Your task to perform on an android device: View the shopping cart on costco. Add "beats solo 3" to the cart on costco Image 0: 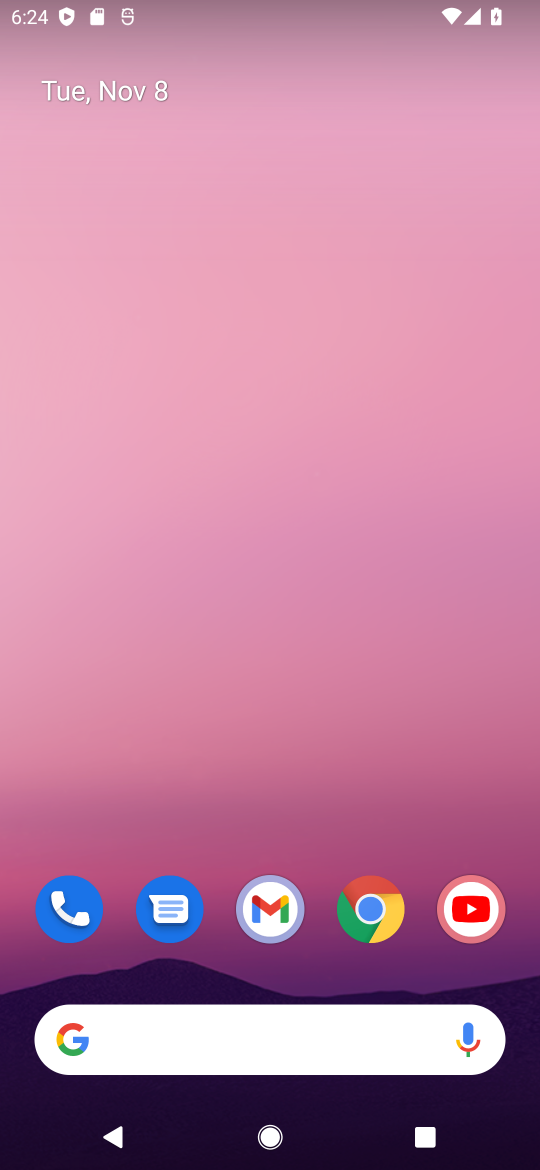
Step 0: click (374, 911)
Your task to perform on an android device: View the shopping cart on costco. Add "beats solo 3" to the cart on costco Image 1: 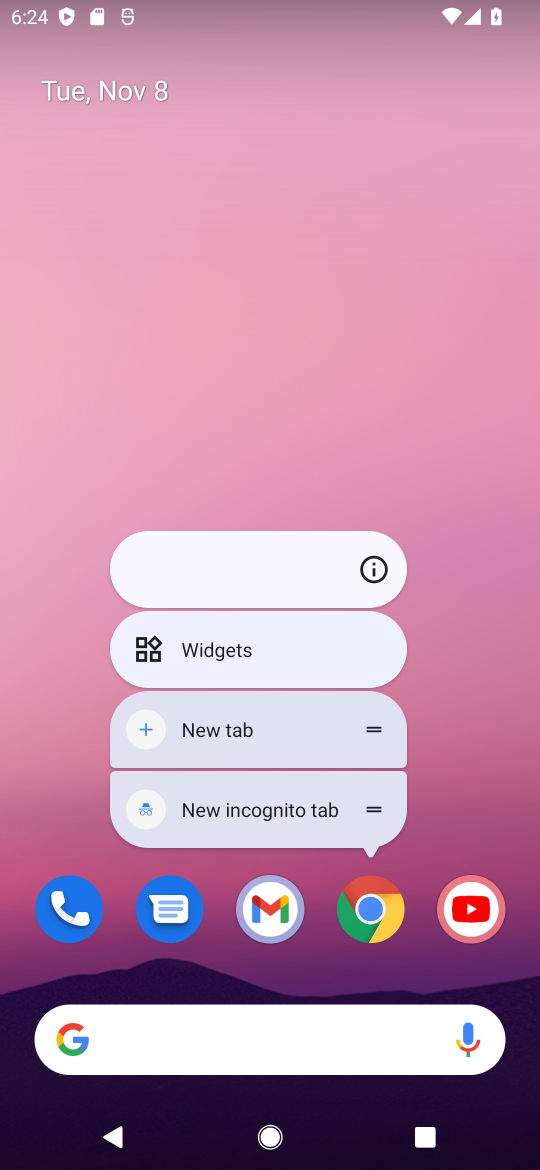
Step 1: click (374, 911)
Your task to perform on an android device: View the shopping cart on costco. Add "beats solo 3" to the cart on costco Image 2: 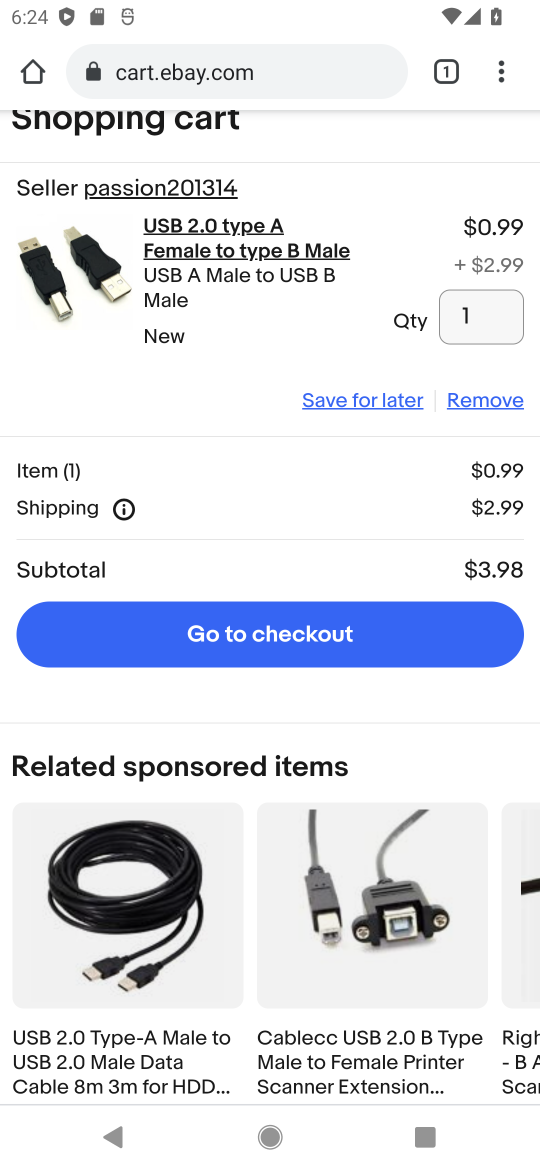
Step 2: click (310, 71)
Your task to perform on an android device: View the shopping cart on costco. Add "beats solo 3" to the cart on costco Image 3: 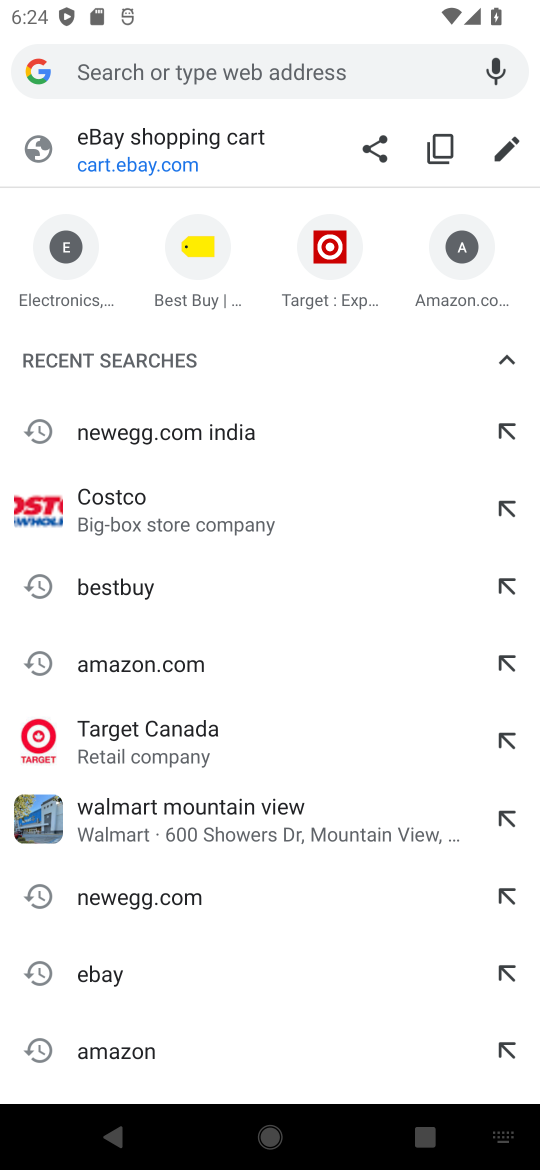
Step 3: click (94, 498)
Your task to perform on an android device: View the shopping cart on costco. Add "beats solo 3" to the cart on costco Image 4: 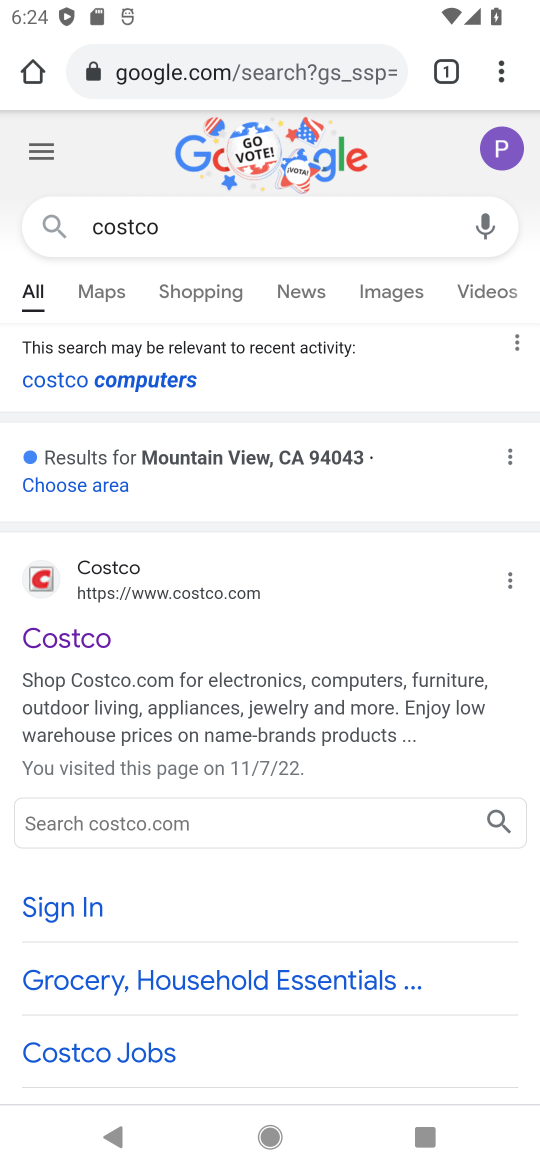
Step 4: click (77, 635)
Your task to perform on an android device: View the shopping cart on costco. Add "beats solo 3" to the cart on costco Image 5: 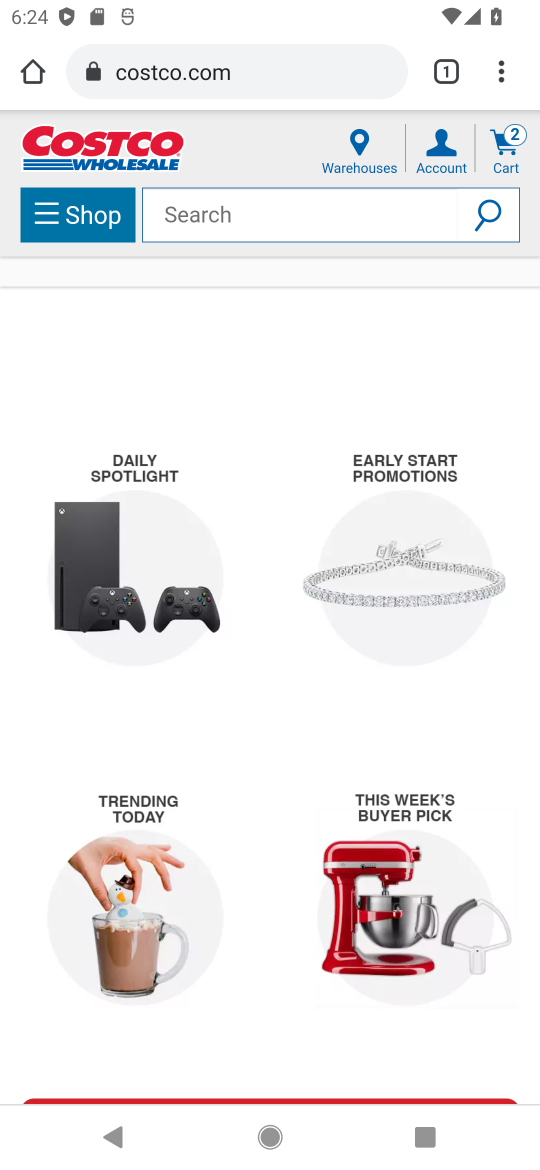
Step 5: click (305, 209)
Your task to perform on an android device: View the shopping cart on costco. Add "beats solo 3" to the cart on costco Image 6: 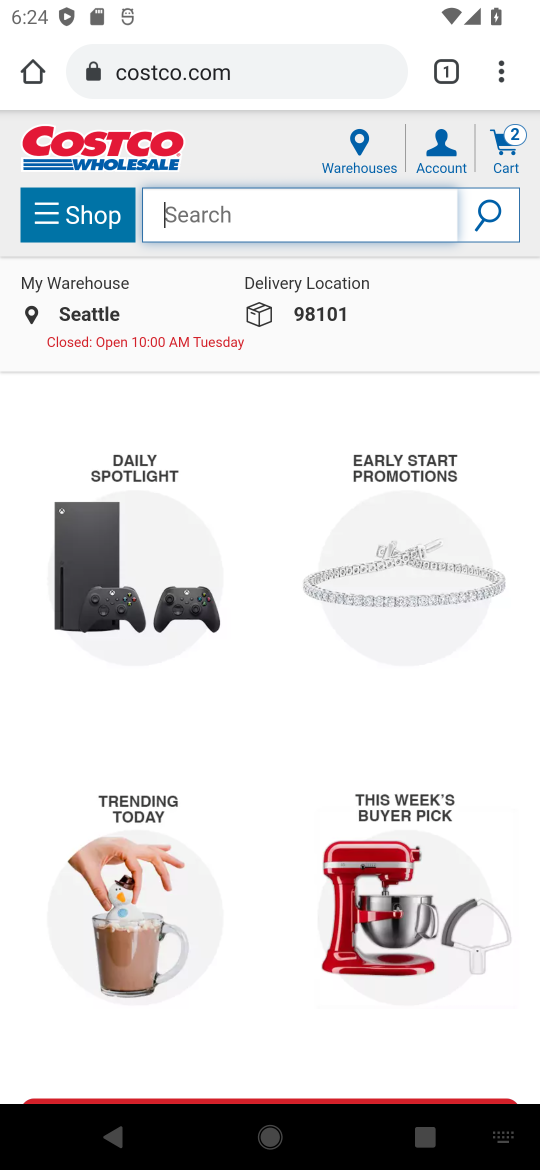
Step 6: click (511, 144)
Your task to perform on an android device: View the shopping cart on costco. Add "beats solo 3" to the cart on costco Image 7: 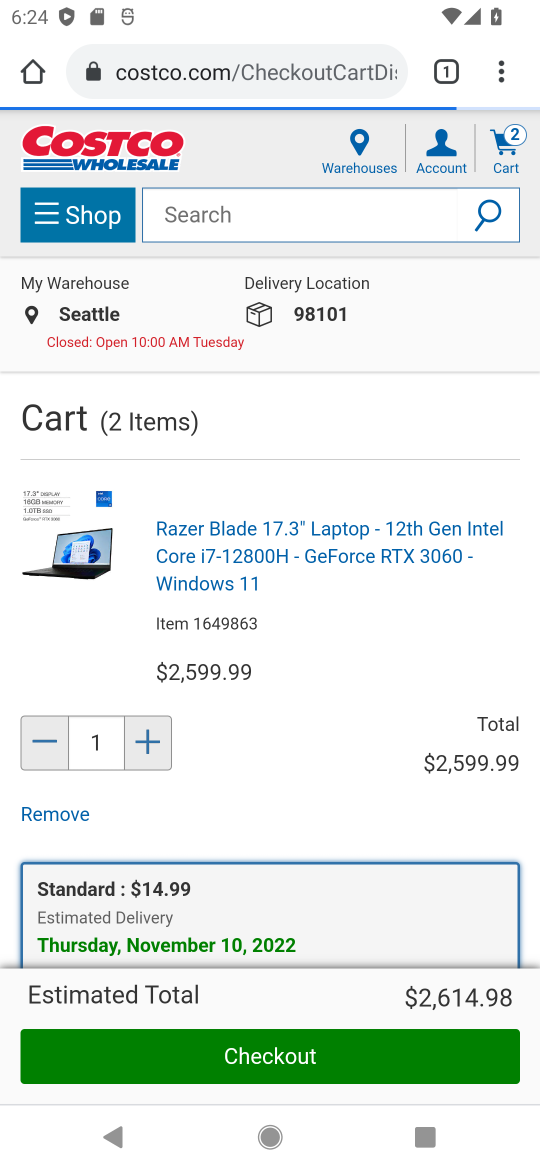
Step 7: click (65, 817)
Your task to perform on an android device: View the shopping cart on costco. Add "beats solo 3" to the cart on costco Image 8: 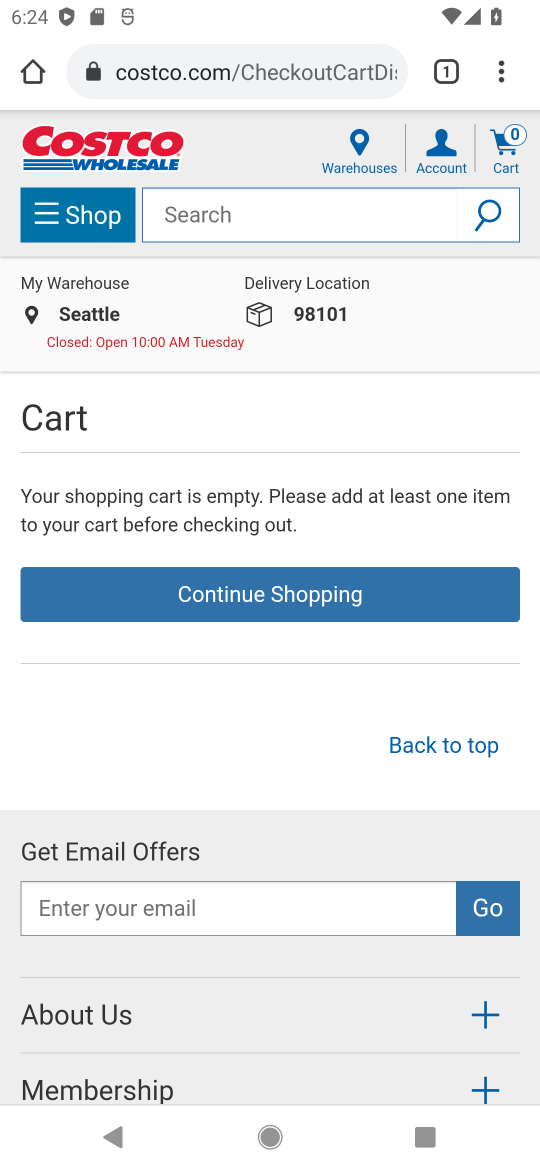
Step 8: click (334, 201)
Your task to perform on an android device: View the shopping cart on costco. Add "beats solo 3" to the cart on costco Image 9: 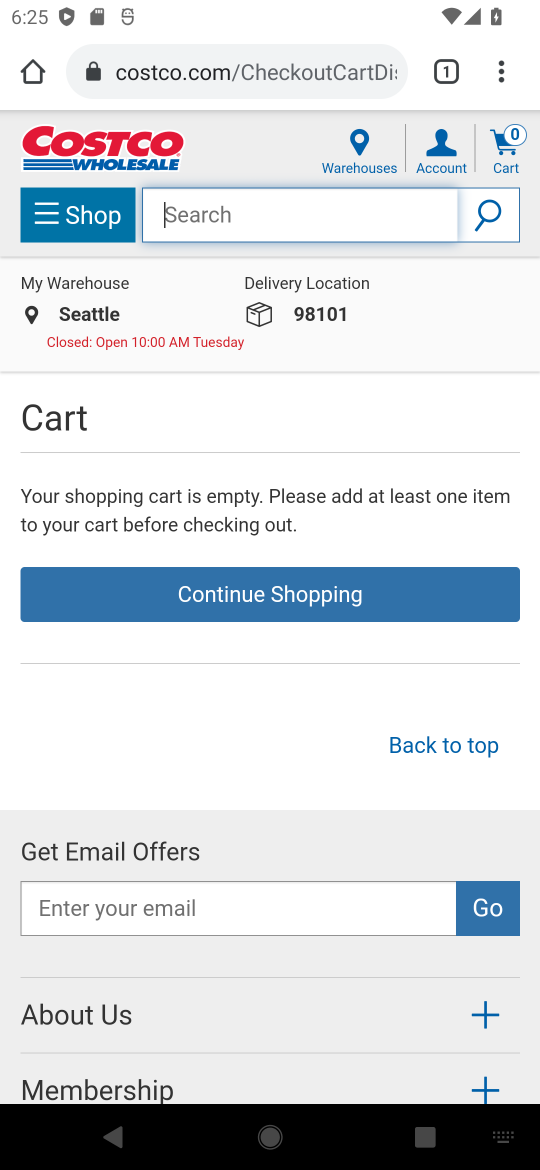
Step 9: type "beats solo 3"
Your task to perform on an android device: View the shopping cart on costco. Add "beats solo 3" to the cart on costco Image 10: 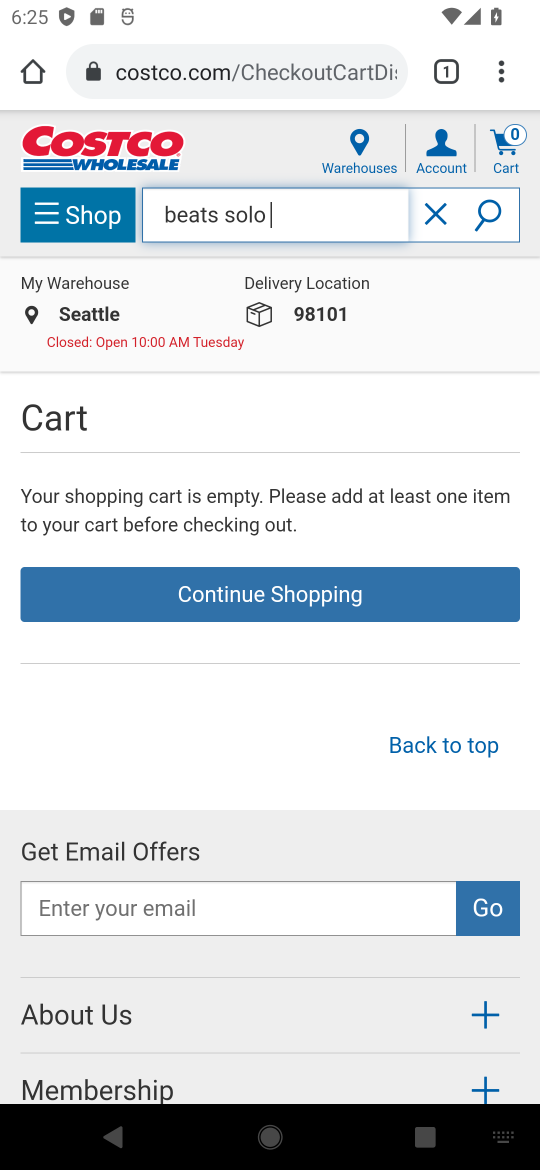
Step 10: press enter
Your task to perform on an android device: View the shopping cart on costco. Add "beats solo 3" to the cart on costco Image 11: 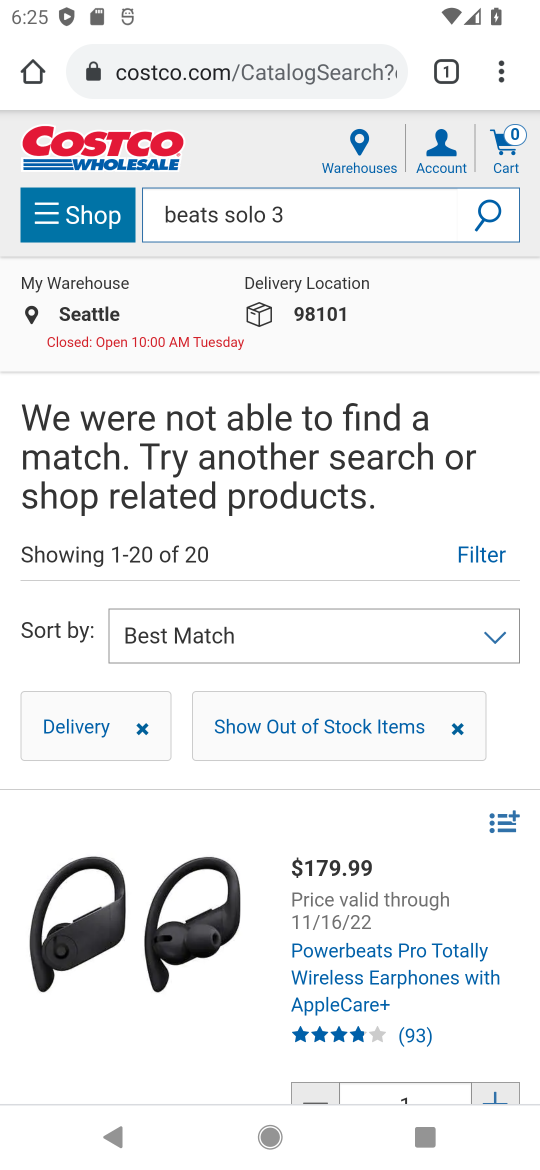
Step 11: task complete